Your task to perform on an android device: change the upload size in google photos Image 0: 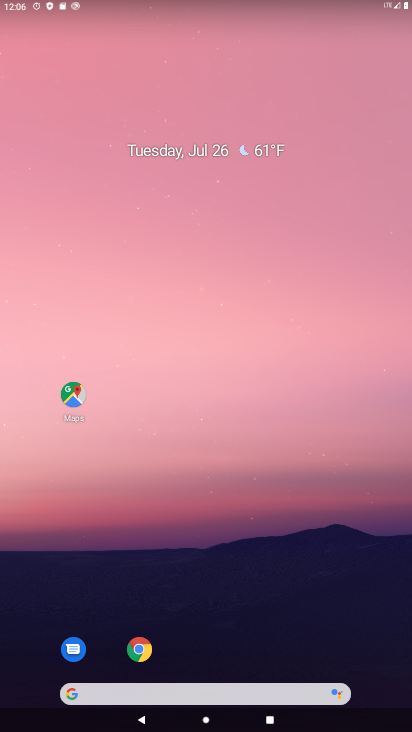
Step 0: drag from (208, 669) to (166, 221)
Your task to perform on an android device: change the upload size in google photos Image 1: 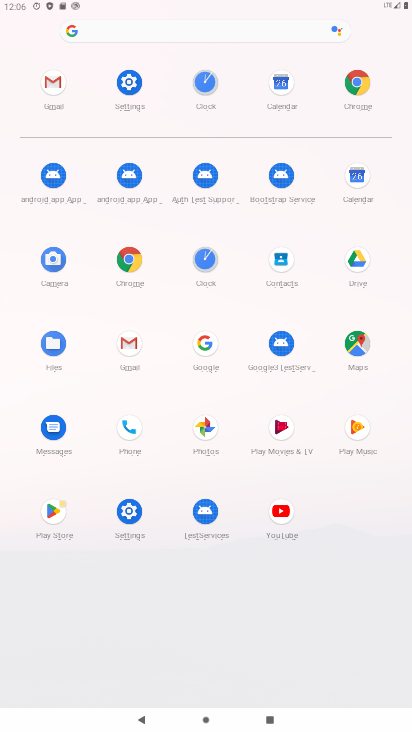
Step 1: click (210, 428)
Your task to perform on an android device: change the upload size in google photos Image 2: 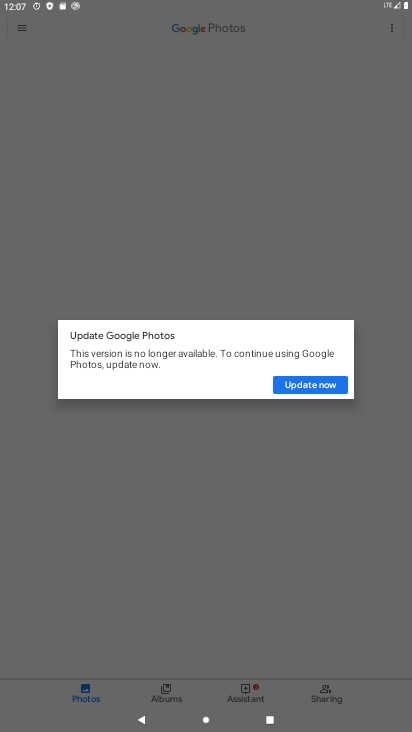
Step 2: click (309, 387)
Your task to perform on an android device: change the upload size in google photos Image 3: 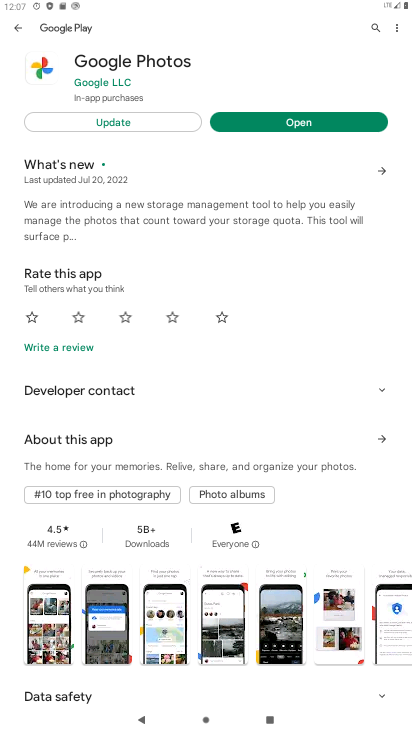
Step 3: click (273, 123)
Your task to perform on an android device: change the upload size in google photos Image 4: 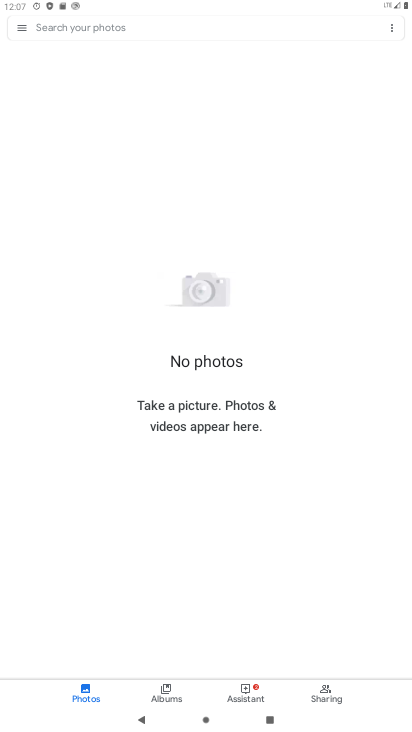
Step 4: click (22, 25)
Your task to perform on an android device: change the upload size in google photos Image 5: 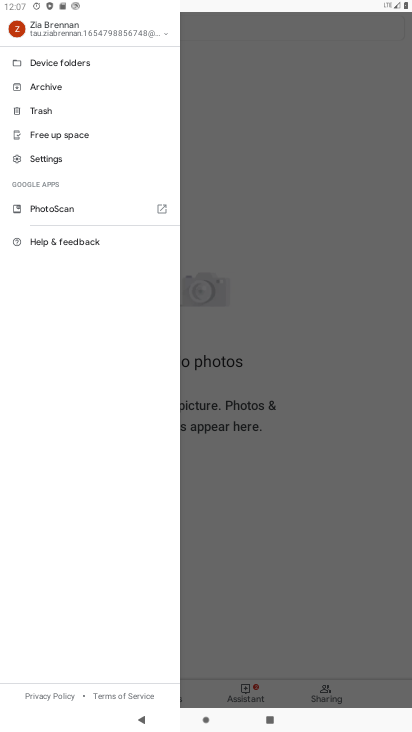
Step 5: click (42, 167)
Your task to perform on an android device: change the upload size in google photos Image 6: 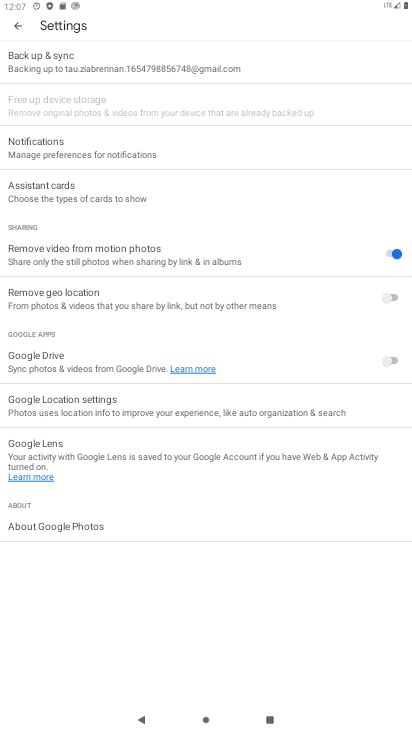
Step 6: click (89, 409)
Your task to perform on an android device: change the upload size in google photos Image 7: 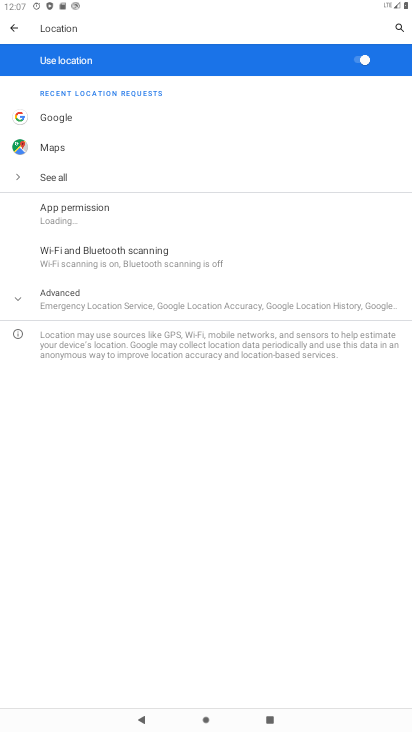
Step 7: task complete